Your task to perform on an android device: Open a new Chrome private tab Image 0: 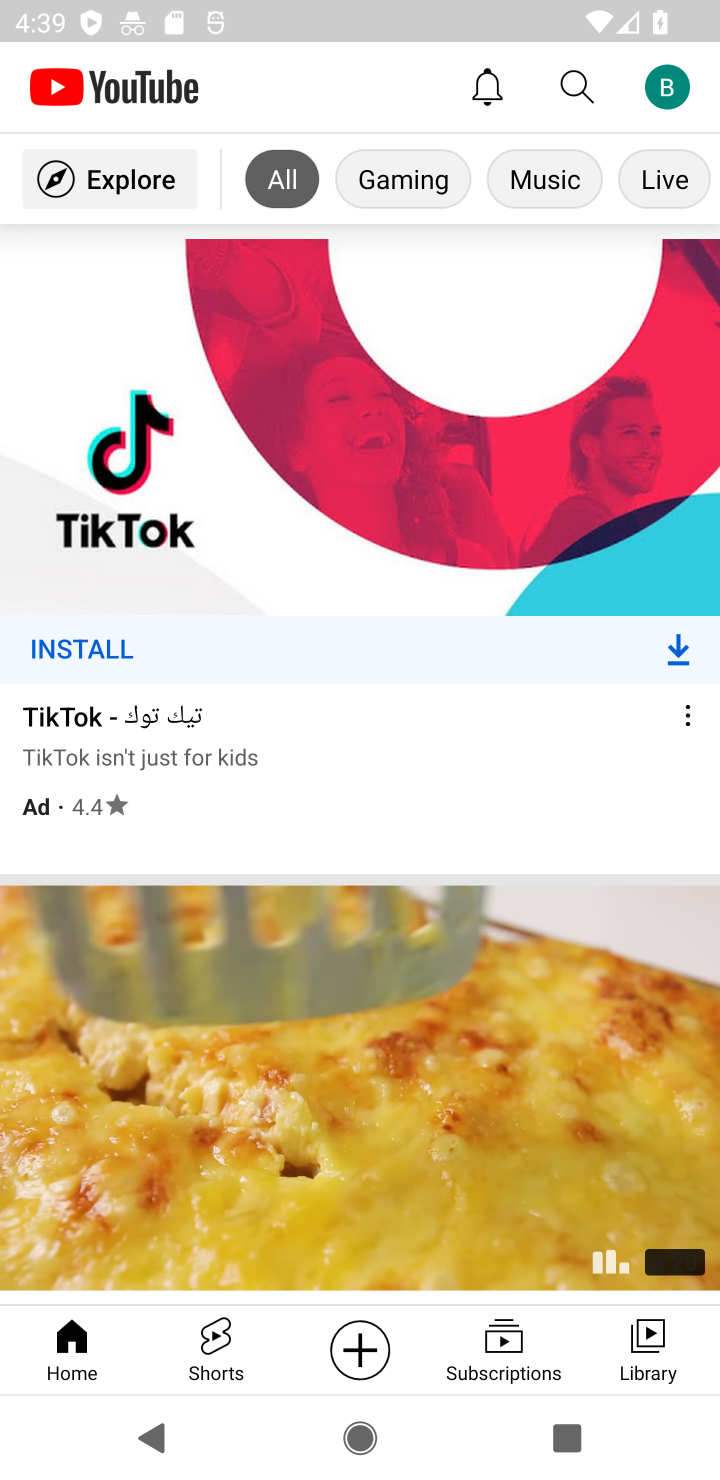
Step 0: press home button
Your task to perform on an android device: Open a new Chrome private tab Image 1: 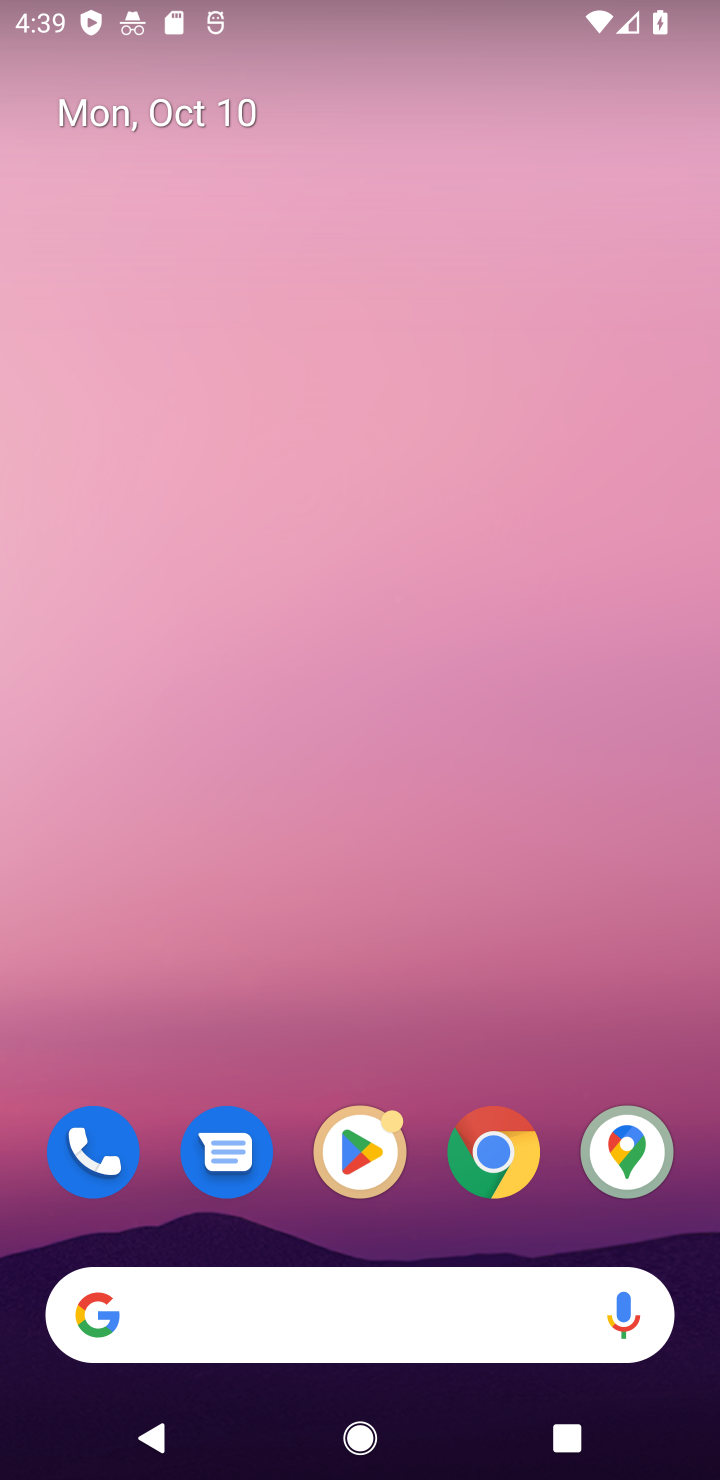
Step 1: click (476, 1153)
Your task to perform on an android device: Open a new Chrome private tab Image 2: 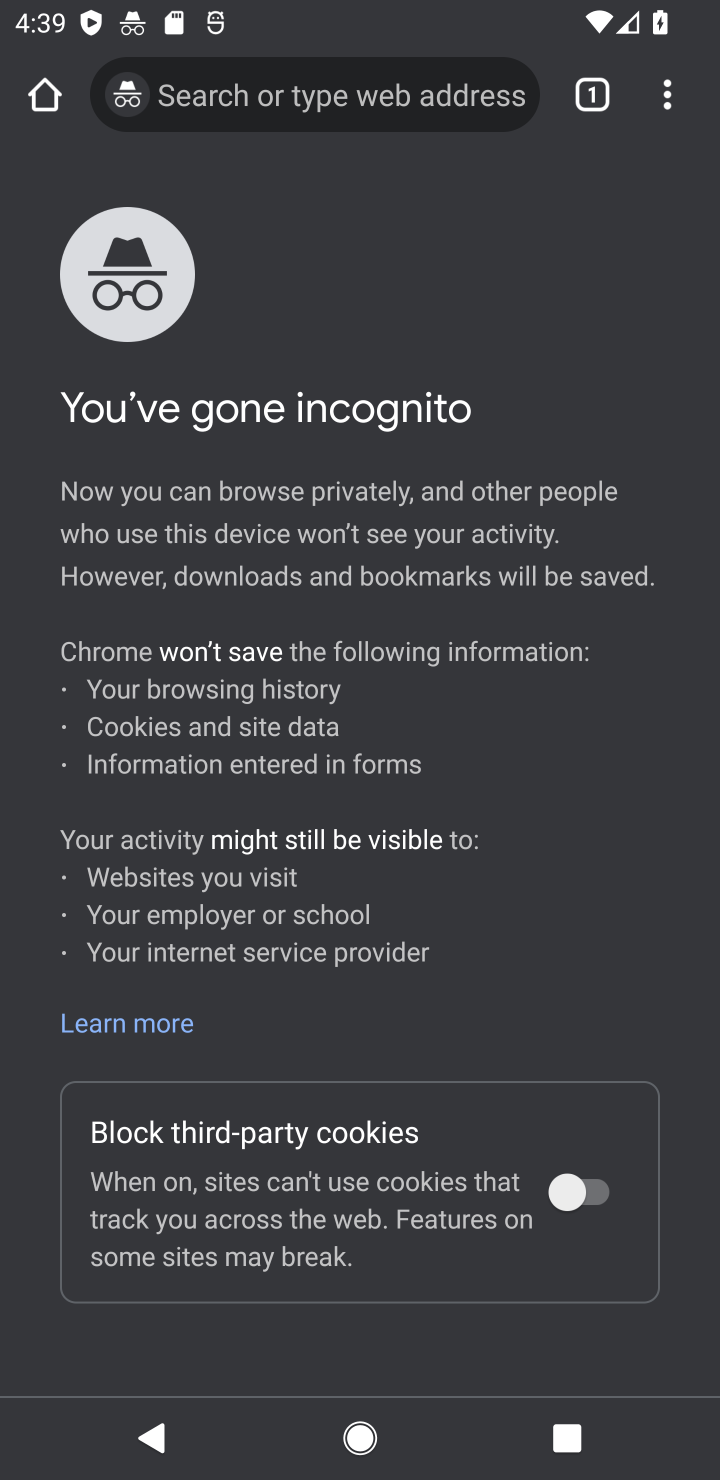
Step 2: click (664, 100)
Your task to perform on an android device: Open a new Chrome private tab Image 3: 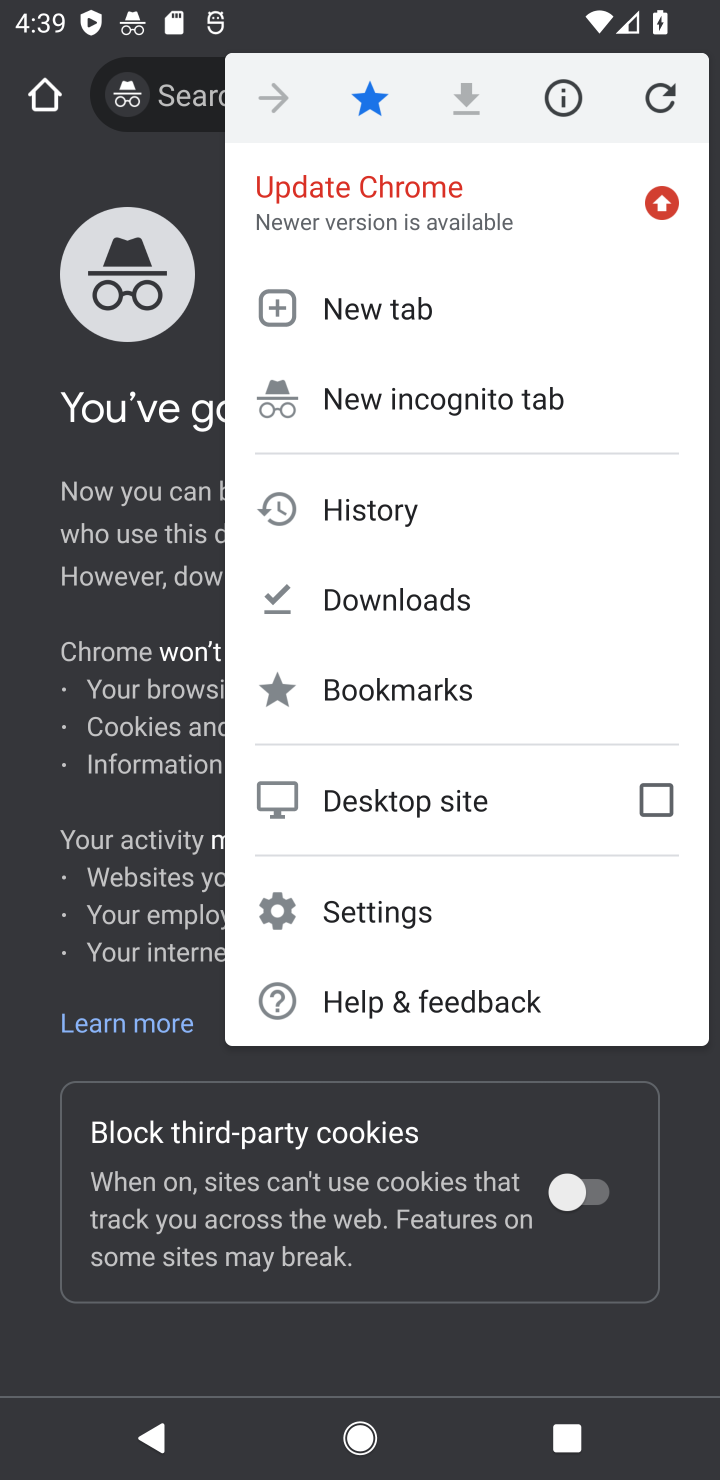
Step 3: click (475, 406)
Your task to perform on an android device: Open a new Chrome private tab Image 4: 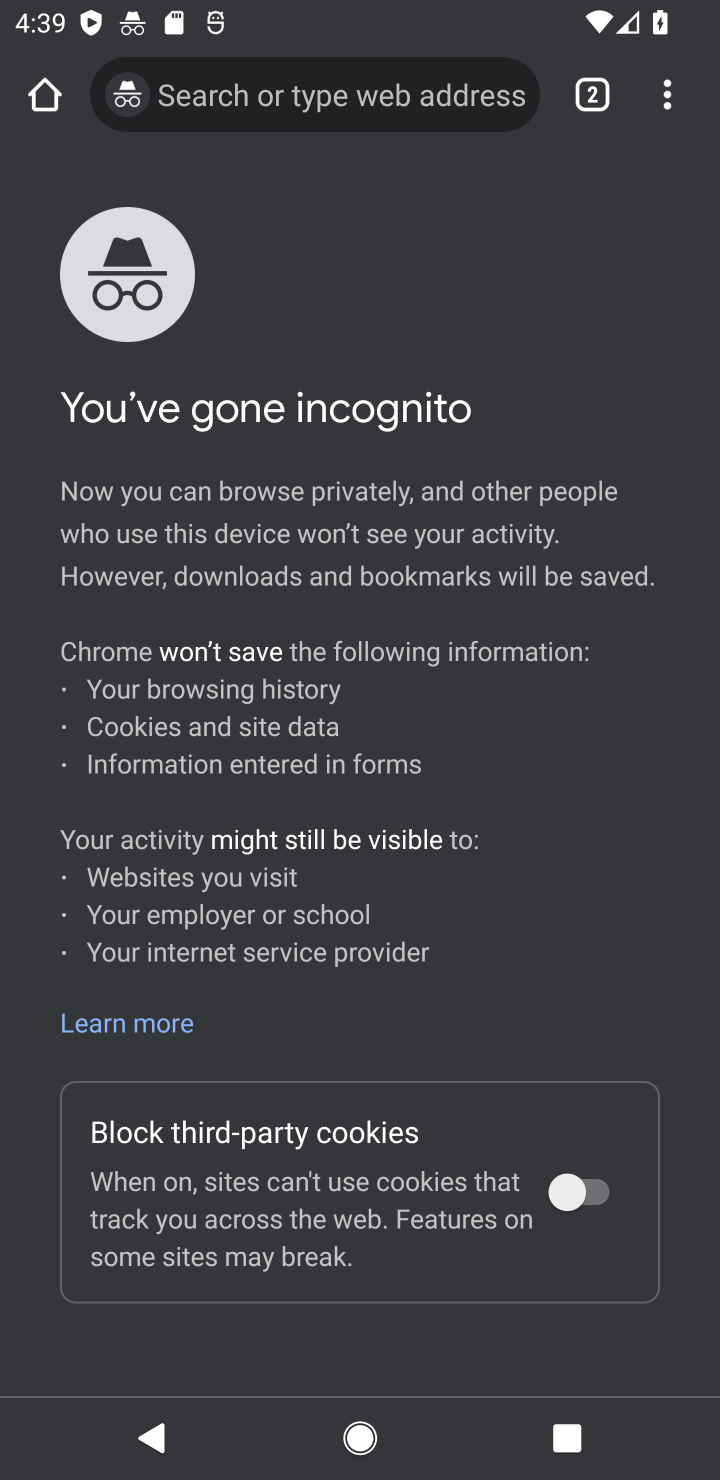
Step 4: task complete